Your task to perform on an android device: turn on location history Image 0: 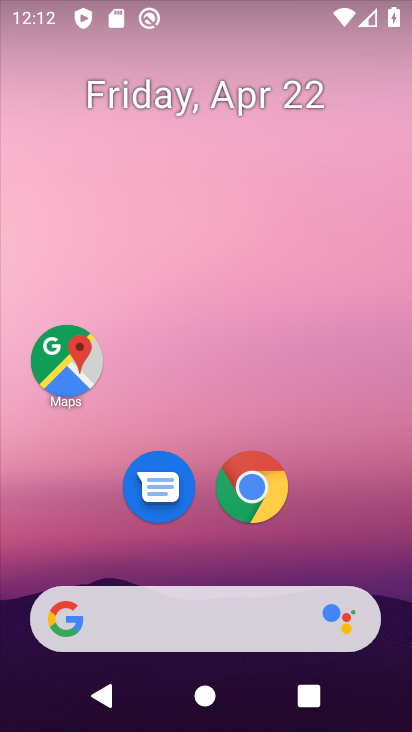
Step 0: drag from (196, 582) to (244, 48)
Your task to perform on an android device: turn on location history Image 1: 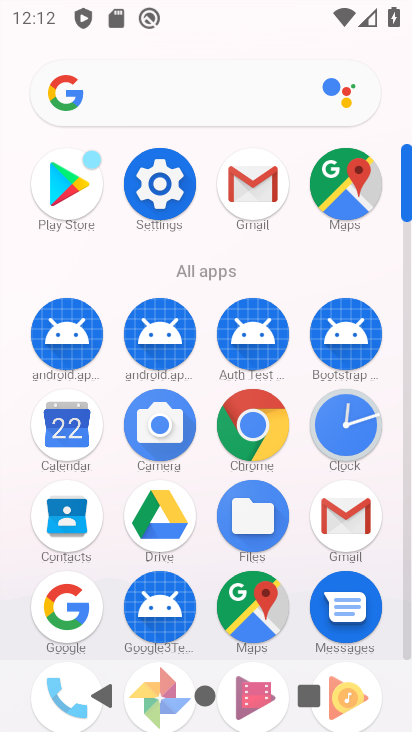
Step 1: click (173, 179)
Your task to perform on an android device: turn on location history Image 2: 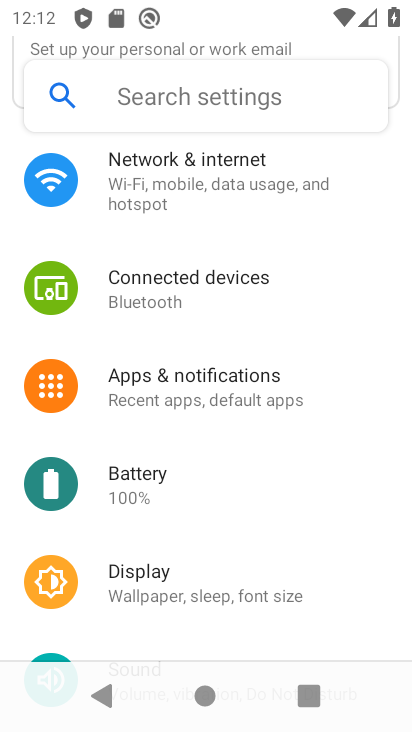
Step 2: drag from (117, 521) to (160, 3)
Your task to perform on an android device: turn on location history Image 3: 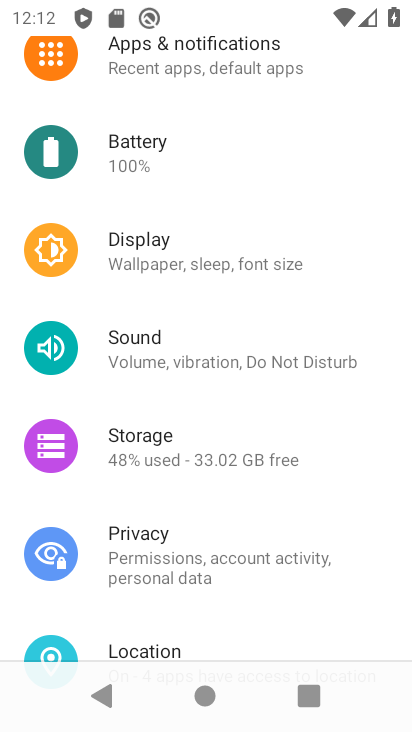
Step 3: click (182, 642)
Your task to perform on an android device: turn on location history Image 4: 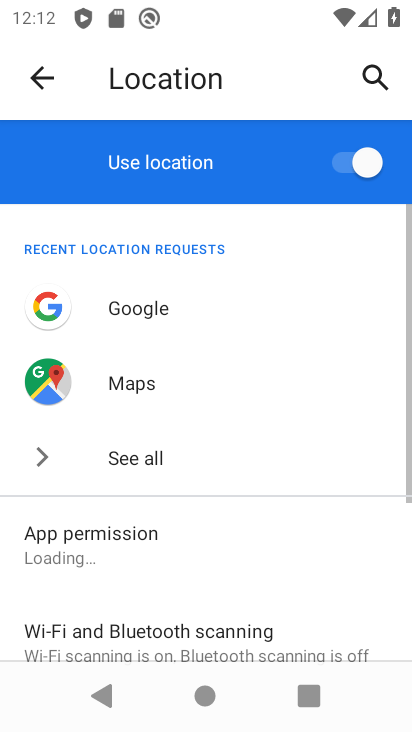
Step 4: drag from (103, 566) to (188, 82)
Your task to perform on an android device: turn on location history Image 5: 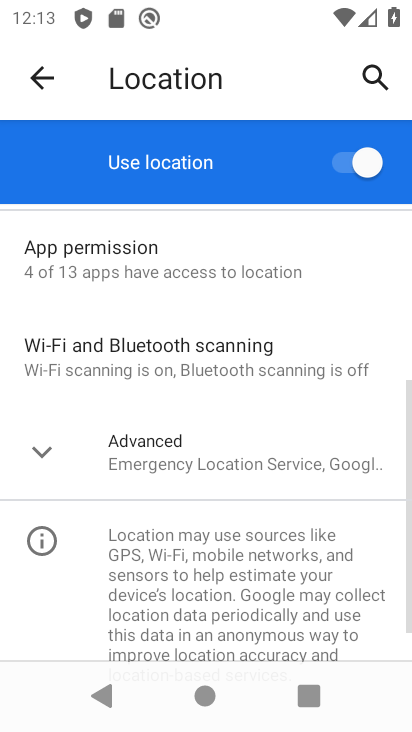
Step 5: click (152, 477)
Your task to perform on an android device: turn on location history Image 6: 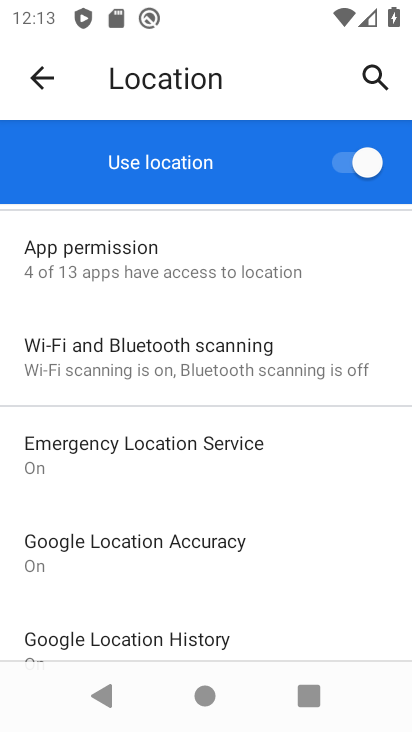
Step 6: click (131, 646)
Your task to perform on an android device: turn on location history Image 7: 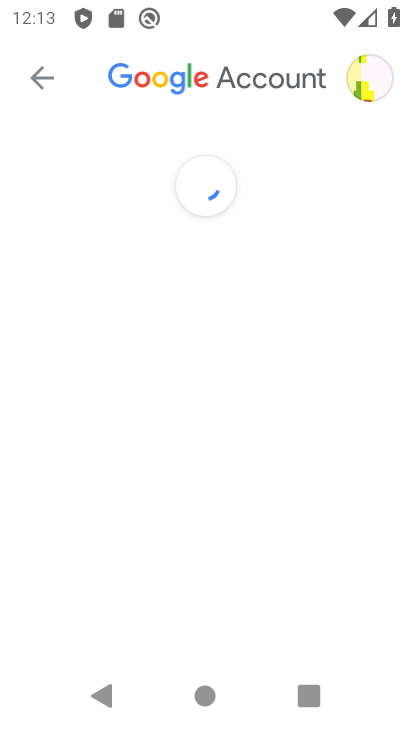
Step 7: task complete